Your task to perform on an android device: turn notification dots on Image 0: 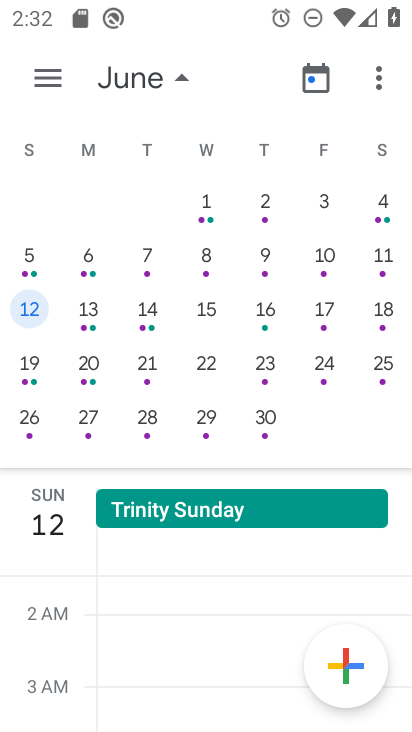
Step 0: press home button
Your task to perform on an android device: turn notification dots on Image 1: 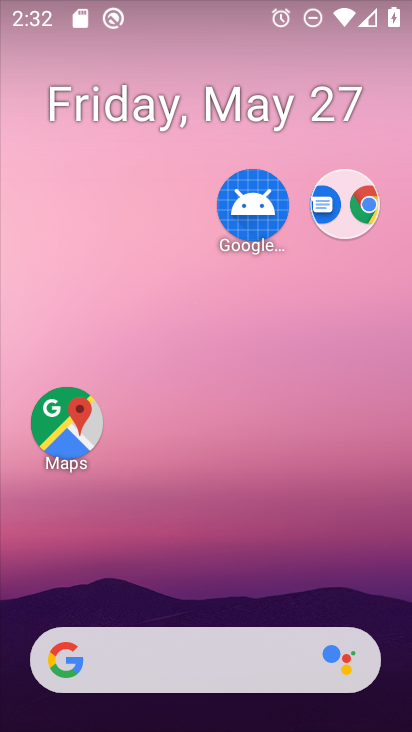
Step 1: drag from (197, 574) to (249, 71)
Your task to perform on an android device: turn notification dots on Image 2: 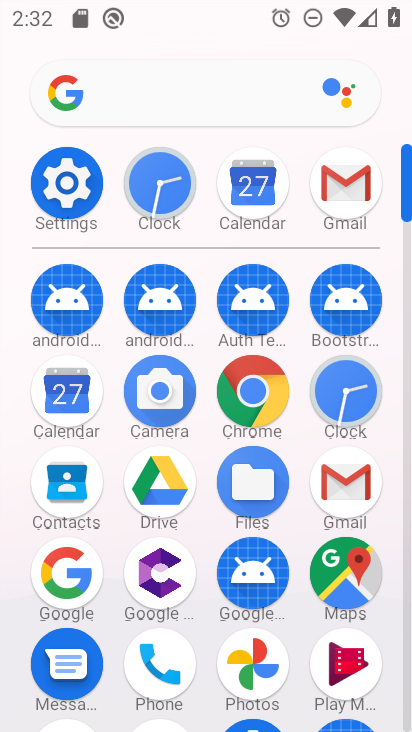
Step 2: click (88, 192)
Your task to perform on an android device: turn notification dots on Image 3: 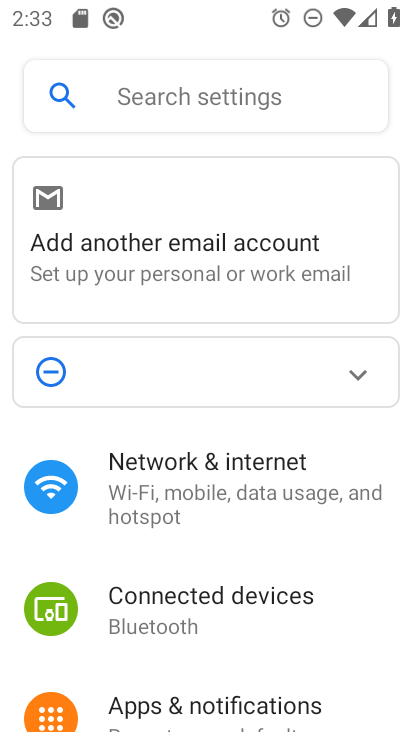
Step 3: click (233, 691)
Your task to perform on an android device: turn notification dots on Image 4: 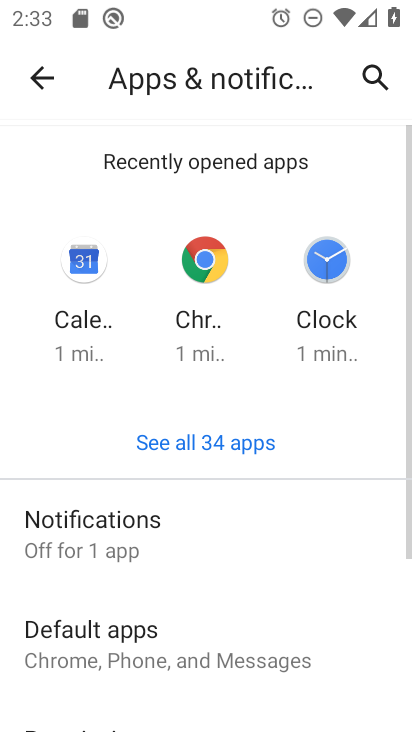
Step 4: drag from (233, 569) to (243, 386)
Your task to perform on an android device: turn notification dots on Image 5: 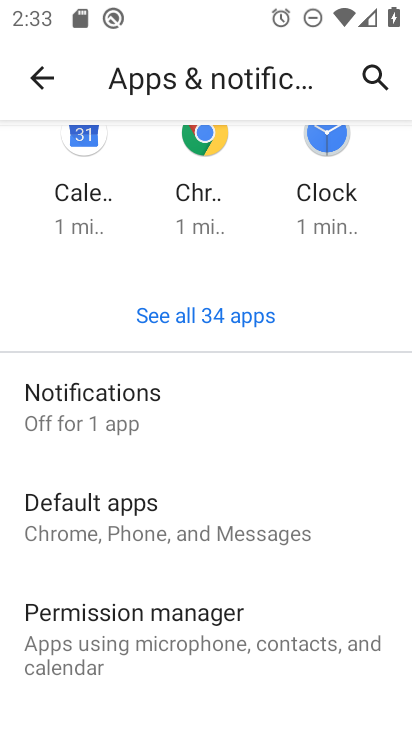
Step 5: click (214, 413)
Your task to perform on an android device: turn notification dots on Image 6: 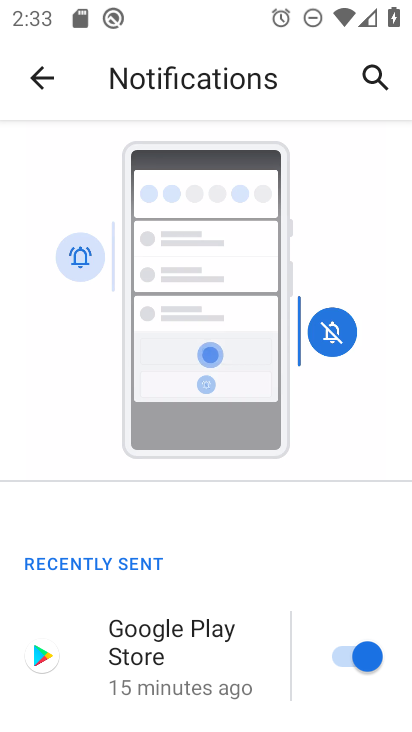
Step 6: drag from (186, 697) to (286, 258)
Your task to perform on an android device: turn notification dots on Image 7: 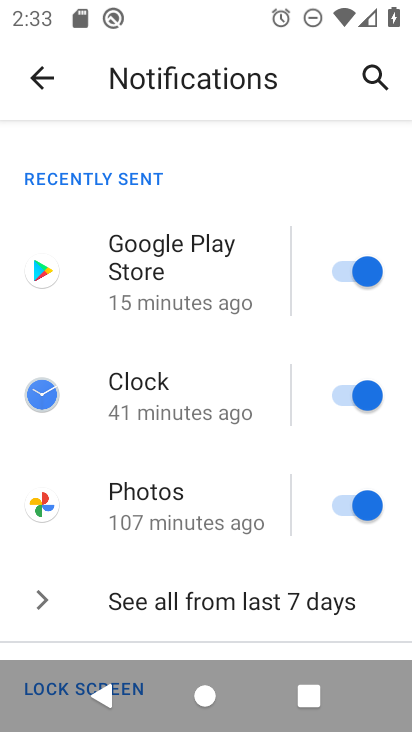
Step 7: drag from (259, 426) to (300, 193)
Your task to perform on an android device: turn notification dots on Image 8: 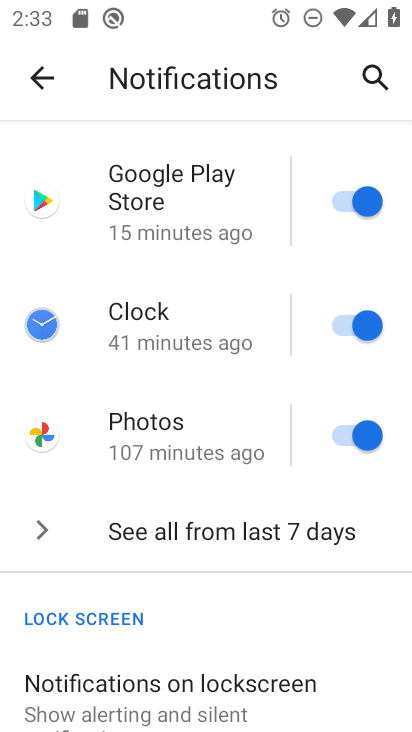
Step 8: drag from (221, 621) to (261, 337)
Your task to perform on an android device: turn notification dots on Image 9: 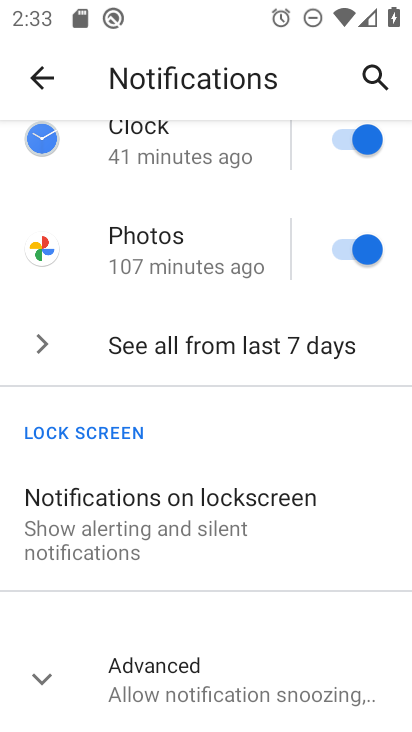
Step 9: click (198, 681)
Your task to perform on an android device: turn notification dots on Image 10: 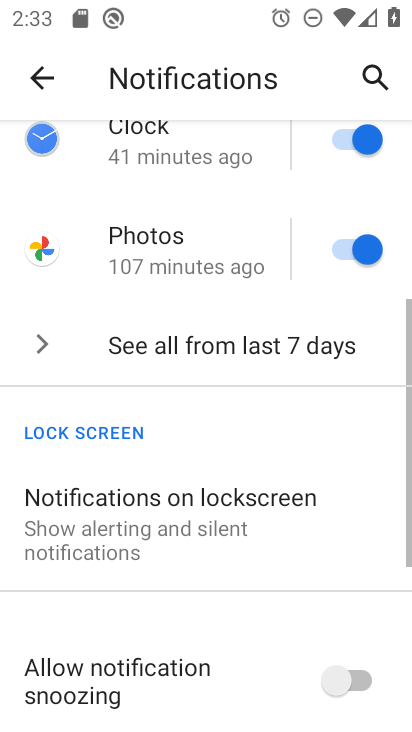
Step 10: drag from (236, 556) to (294, 335)
Your task to perform on an android device: turn notification dots on Image 11: 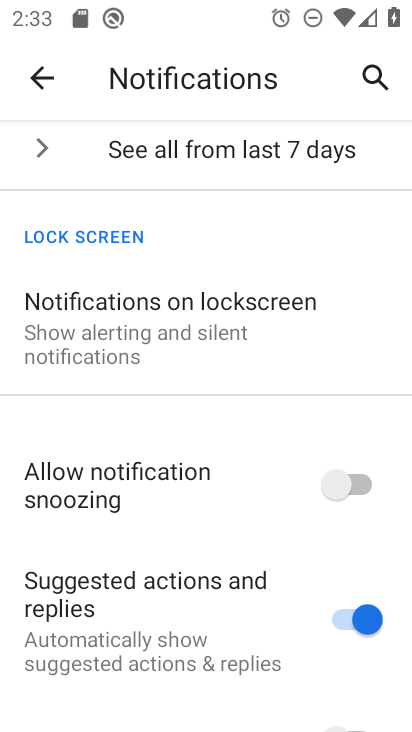
Step 11: drag from (194, 601) to (256, 337)
Your task to perform on an android device: turn notification dots on Image 12: 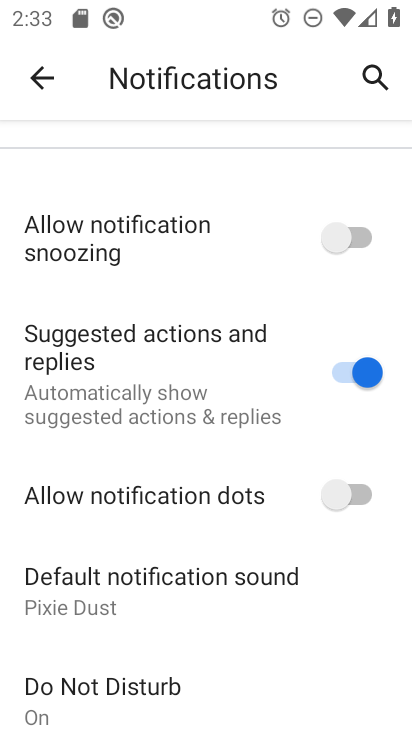
Step 12: click (244, 489)
Your task to perform on an android device: turn notification dots on Image 13: 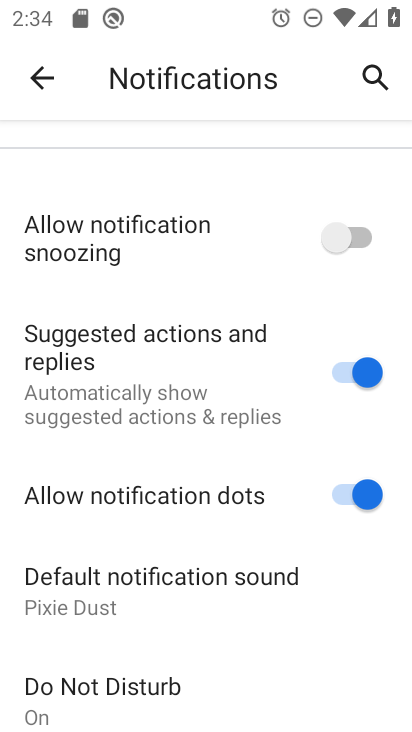
Step 13: task complete